Your task to perform on an android device: Go to settings Image 0: 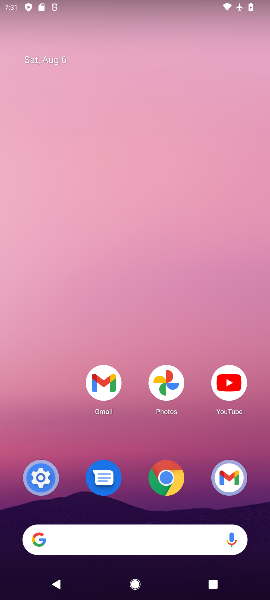
Step 0: press home button
Your task to perform on an android device: Go to settings Image 1: 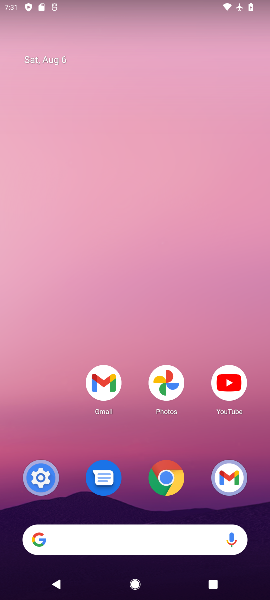
Step 1: click (41, 476)
Your task to perform on an android device: Go to settings Image 2: 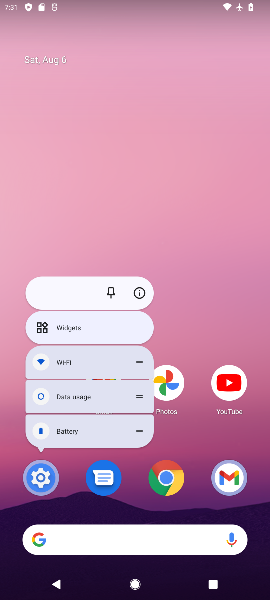
Step 2: click (47, 480)
Your task to perform on an android device: Go to settings Image 3: 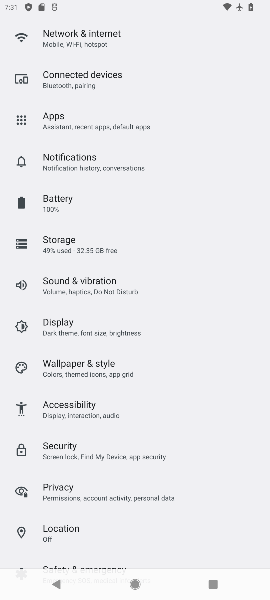
Step 3: task complete